Your task to perform on an android device: What's the weather going to be this weekend? Image 0: 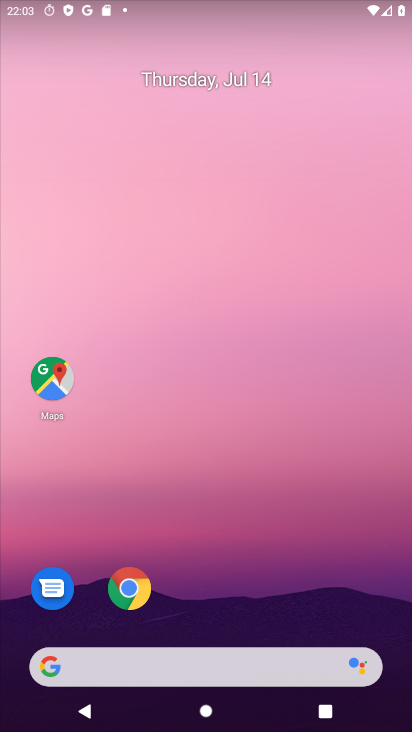
Step 0: drag from (225, 628) to (258, 177)
Your task to perform on an android device: What's the weather going to be this weekend? Image 1: 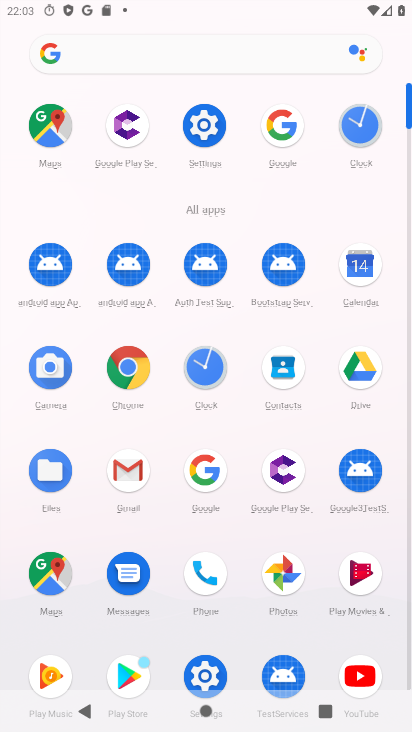
Step 1: click (208, 469)
Your task to perform on an android device: What's the weather going to be this weekend? Image 2: 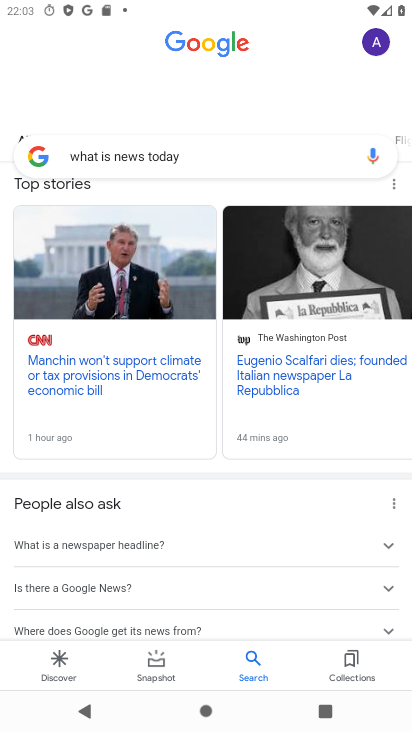
Step 2: click (234, 151)
Your task to perform on an android device: What's the weather going to be this weekend? Image 3: 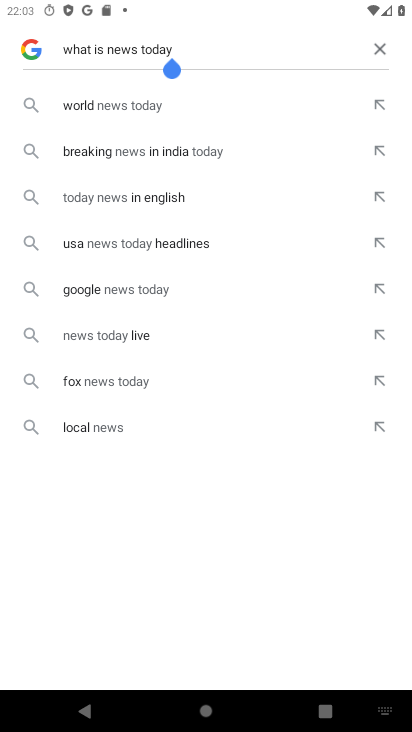
Step 3: click (377, 47)
Your task to perform on an android device: What's the weather going to be this weekend? Image 4: 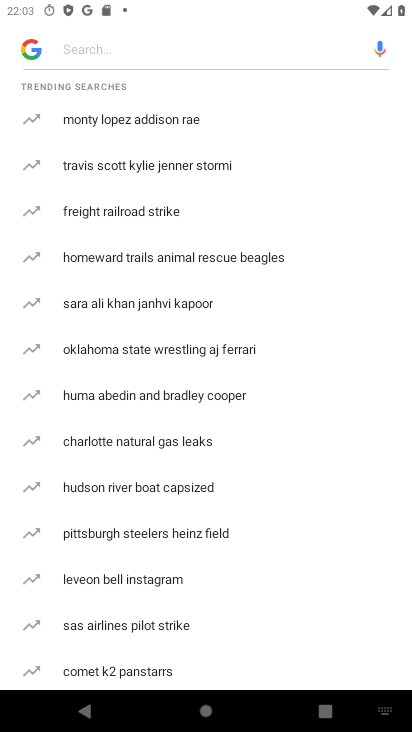
Step 4: type "whats the weather going to be this weekend"
Your task to perform on an android device: What's the weather going to be this weekend? Image 5: 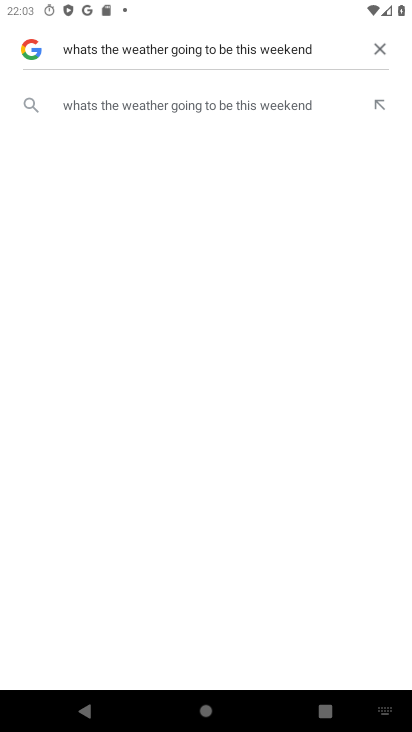
Step 5: click (228, 105)
Your task to perform on an android device: What's the weather going to be this weekend? Image 6: 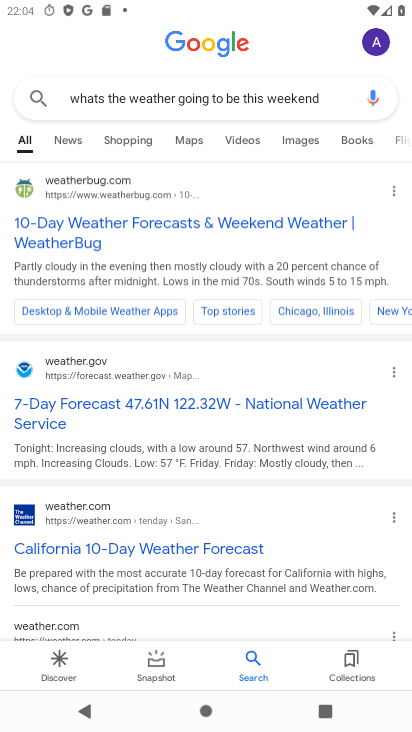
Step 6: task complete